Your task to perform on an android device: Clear the cart on bestbuy.com. Image 0: 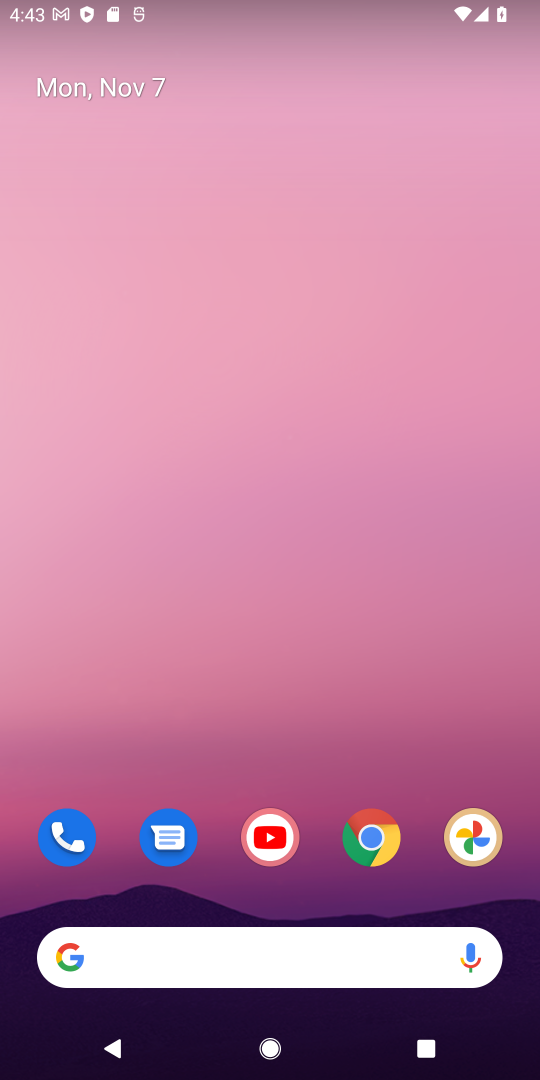
Step 0: click (371, 853)
Your task to perform on an android device: Clear the cart on bestbuy.com. Image 1: 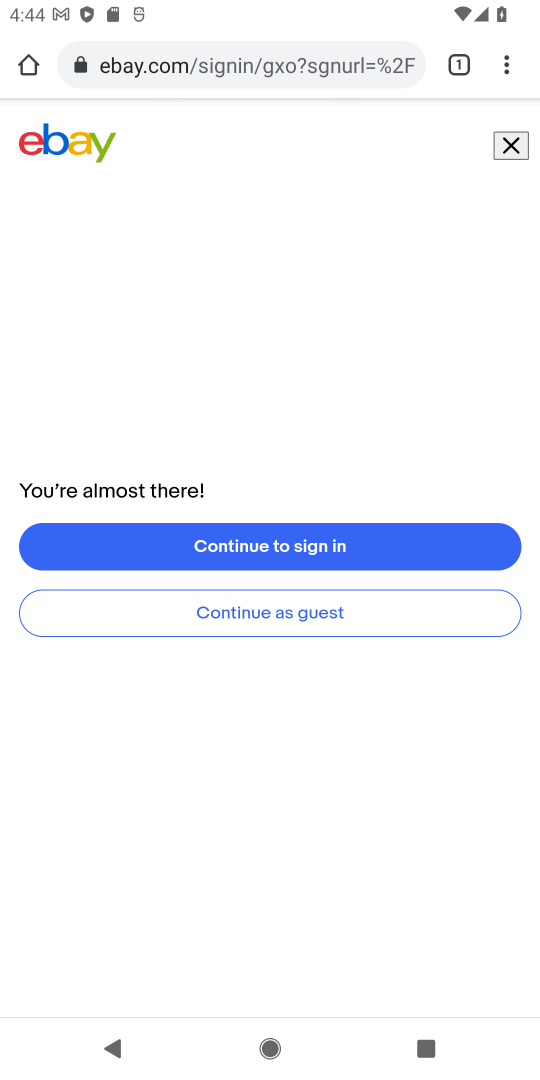
Step 1: click (252, 76)
Your task to perform on an android device: Clear the cart on bestbuy.com. Image 2: 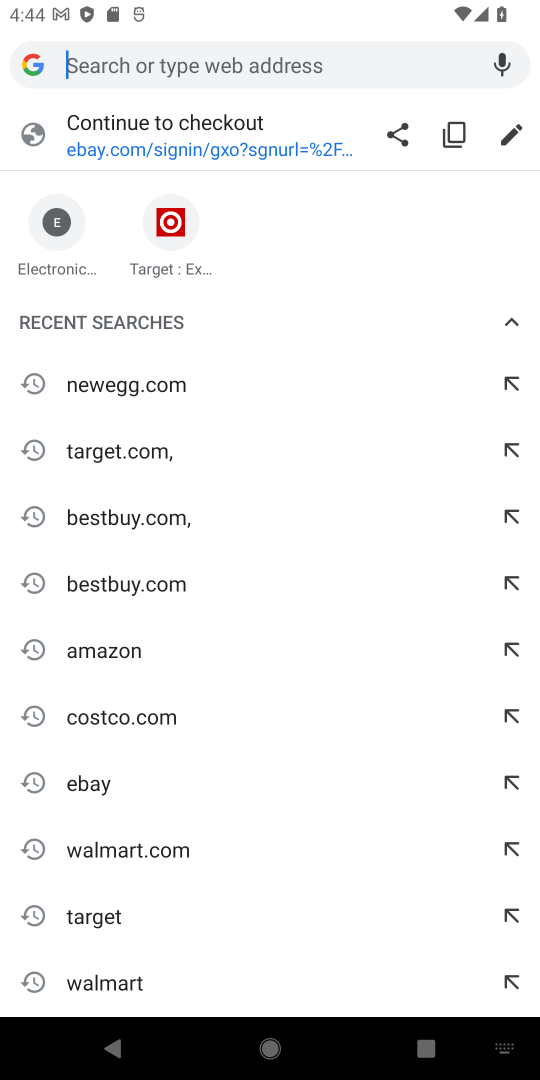
Step 2: type "bestbuy.com"
Your task to perform on an android device: Clear the cart on bestbuy.com. Image 3: 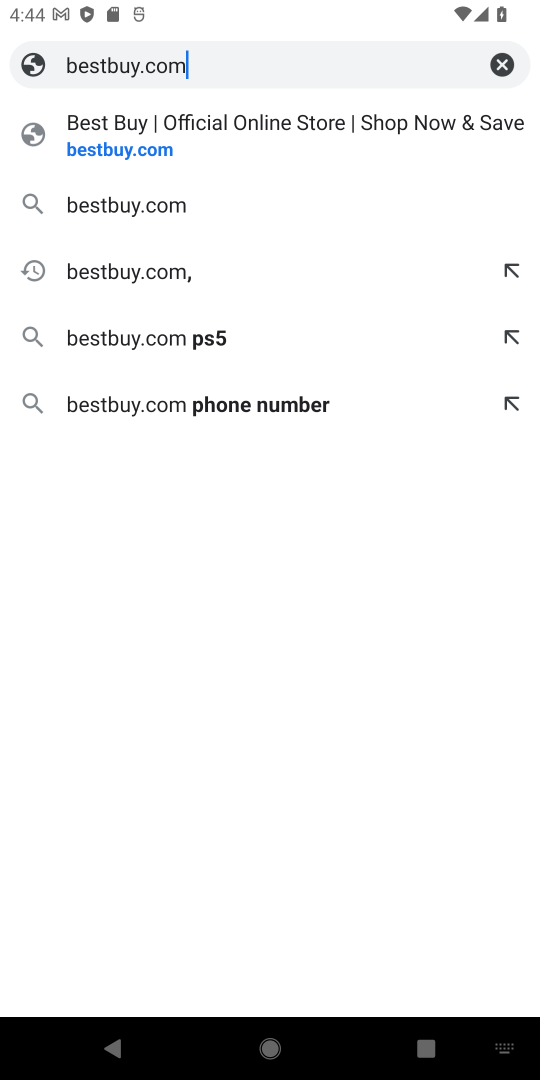
Step 3: click (169, 120)
Your task to perform on an android device: Clear the cart on bestbuy.com. Image 4: 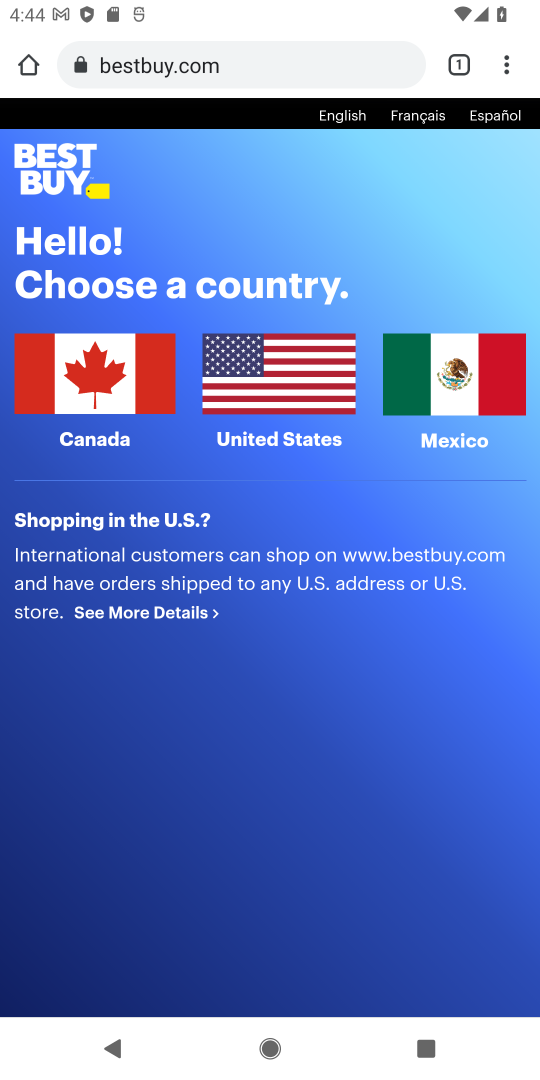
Step 4: click (289, 408)
Your task to perform on an android device: Clear the cart on bestbuy.com. Image 5: 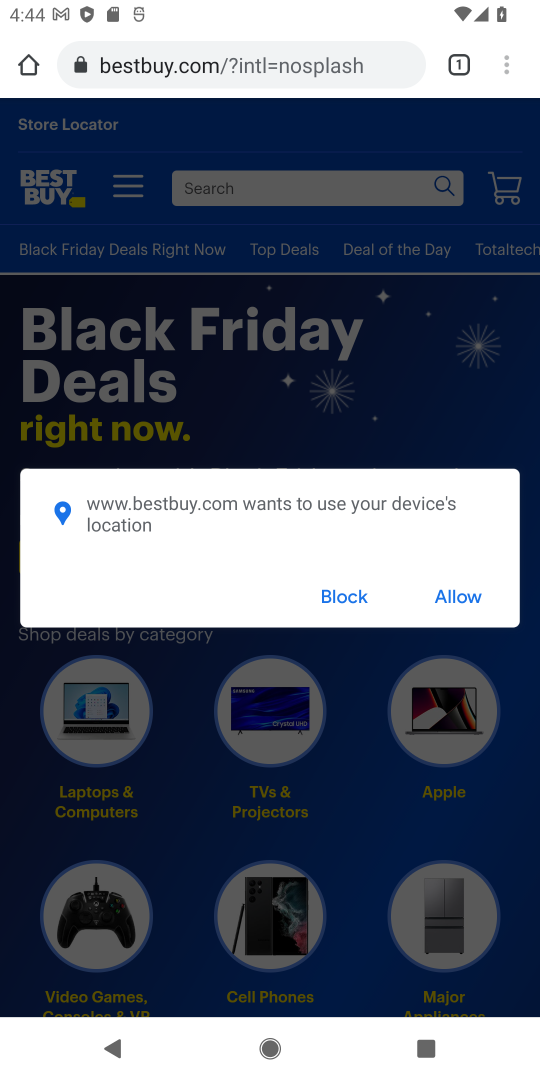
Step 5: click (470, 600)
Your task to perform on an android device: Clear the cart on bestbuy.com. Image 6: 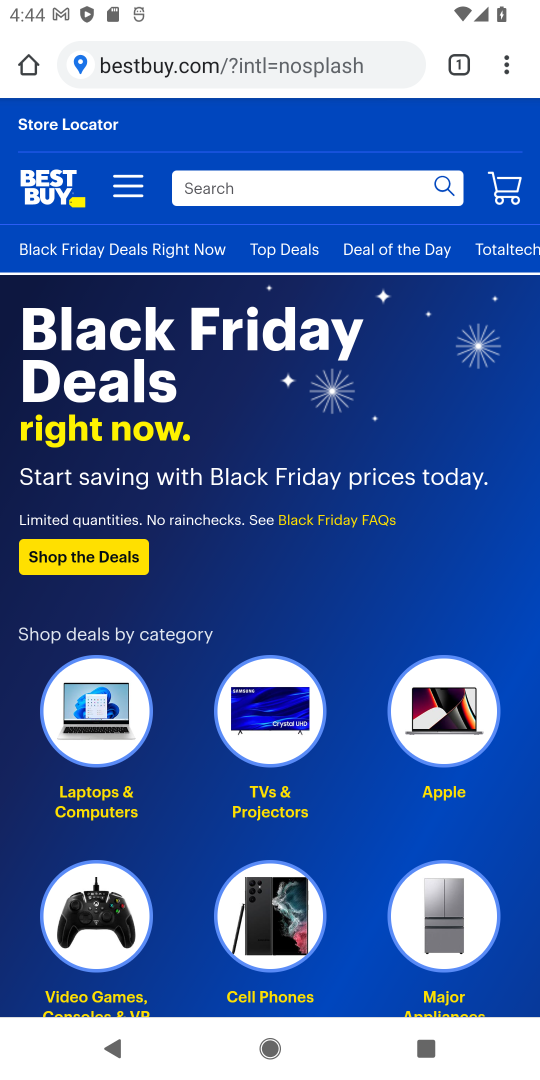
Step 6: click (274, 175)
Your task to perform on an android device: Clear the cart on bestbuy.com. Image 7: 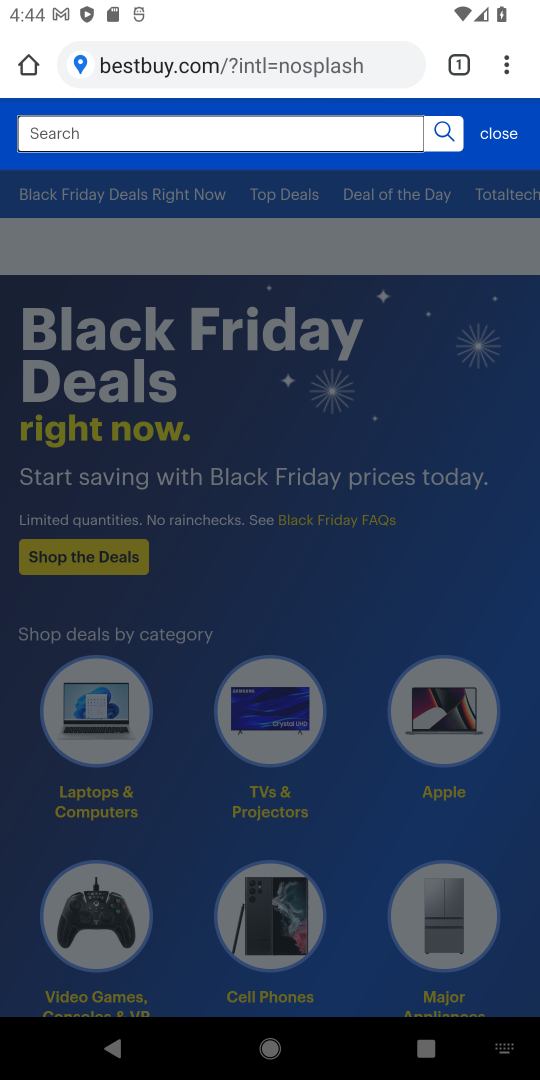
Step 7: type "bestbuy.com"
Your task to perform on an android device: Clear the cart on bestbuy.com. Image 8: 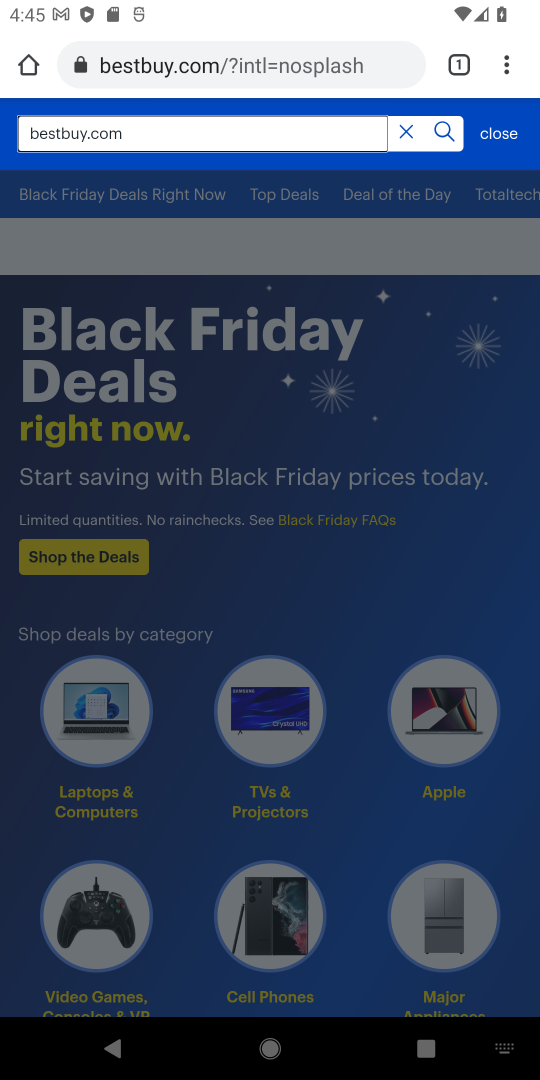
Step 8: click (400, 124)
Your task to perform on an android device: Clear the cart on bestbuy.com. Image 9: 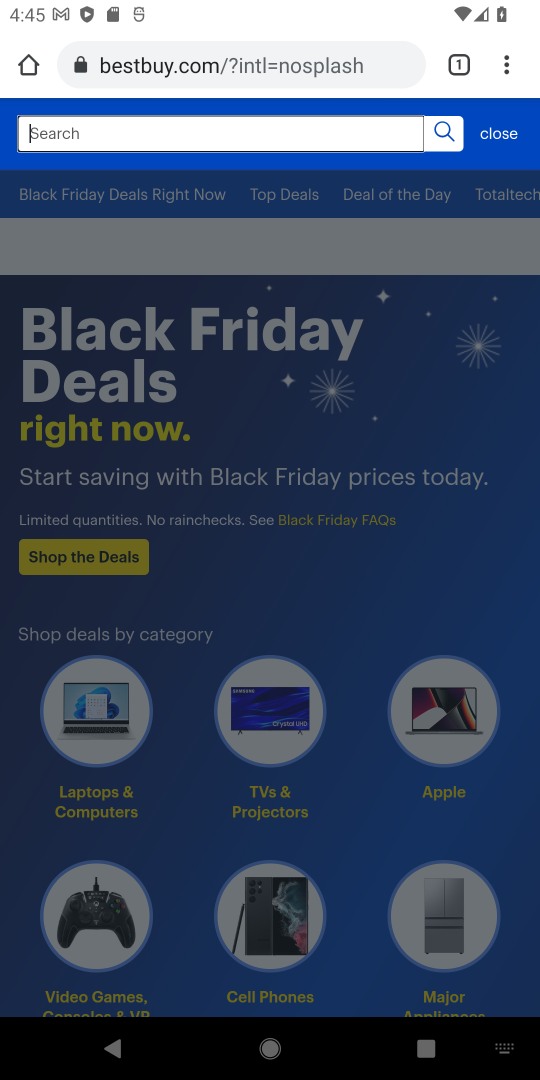
Step 9: click (512, 144)
Your task to perform on an android device: Clear the cart on bestbuy.com. Image 10: 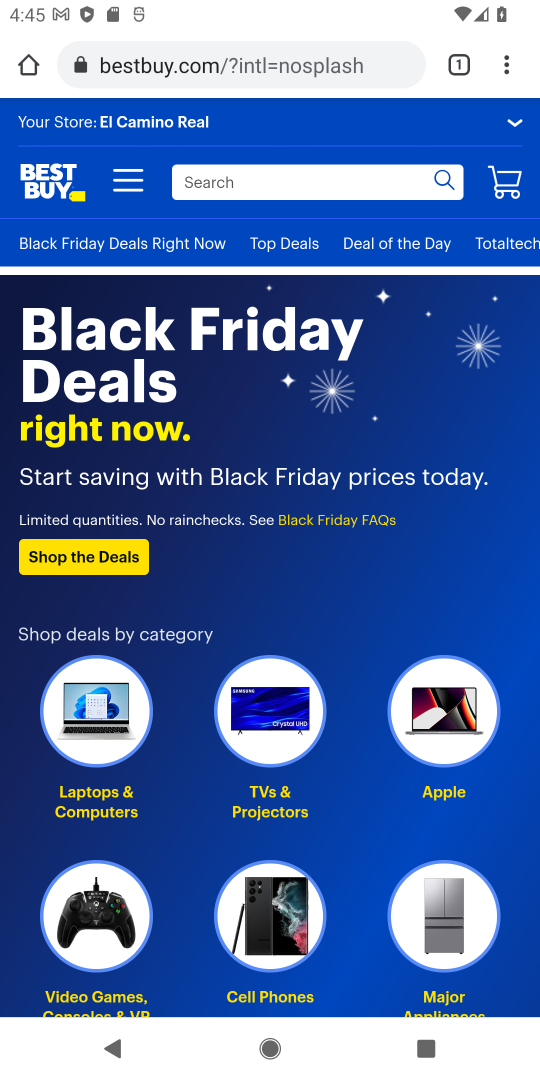
Step 10: click (518, 192)
Your task to perform on an android device: Clear the cart on bestbuy.com. Image 11: 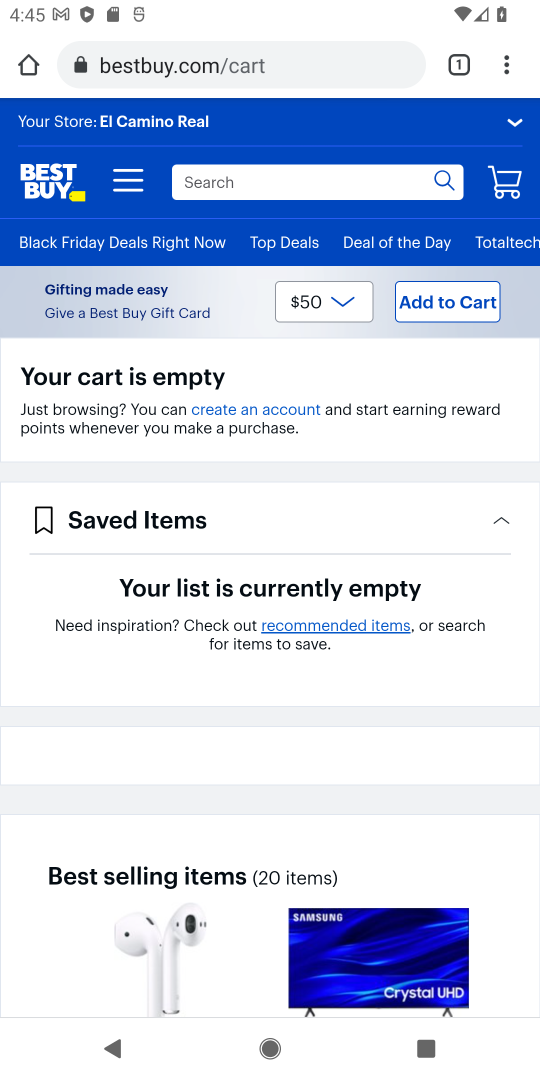
Step 11: task complete